Your task to perform on an android device: What's the weather going to be tomorrow? Image 0: 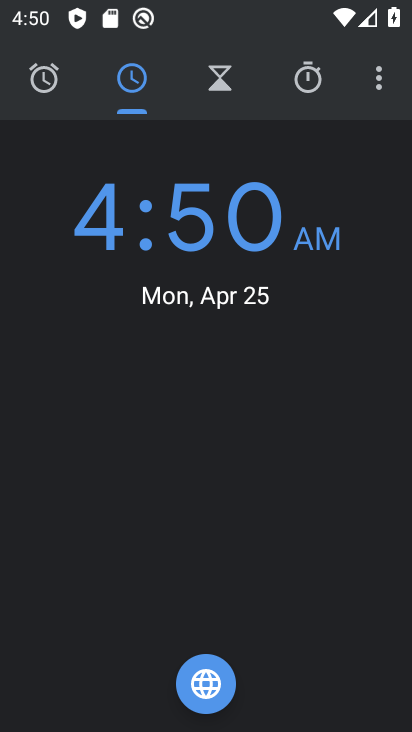
Step 0: press back button
Your task to perform on an android device: What's the weather going to be tomorrow? Image 1: 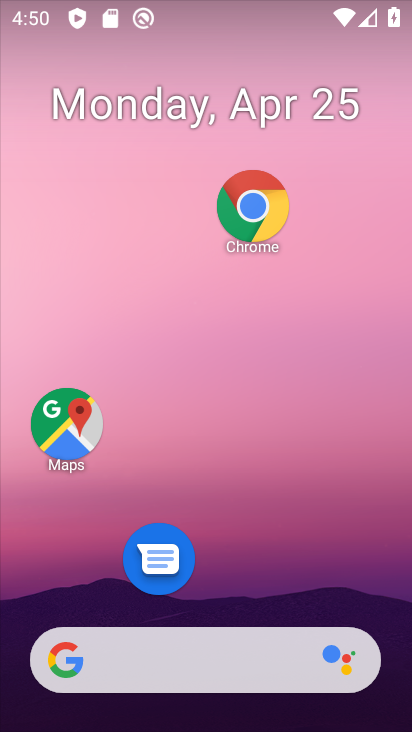
Step 1: drag from (284, 511) to (291, 43)
Your task to perform on an android device: What's the weather going to be tomorrow? Image 2: 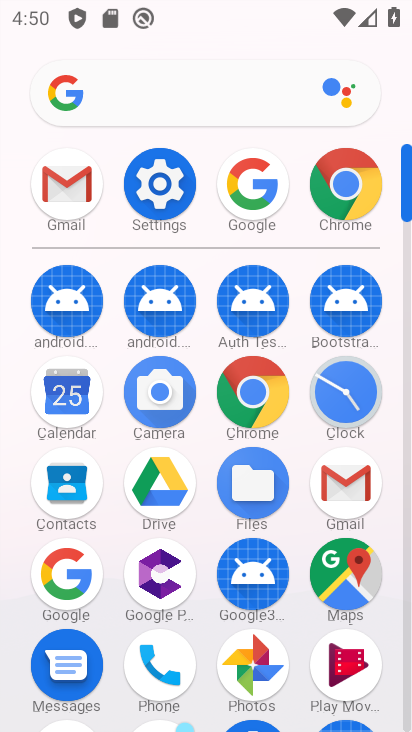
Step 2: click (243, 182)
Your task to perform on an android device: What's the weather going to be tomorrow? Image 3: 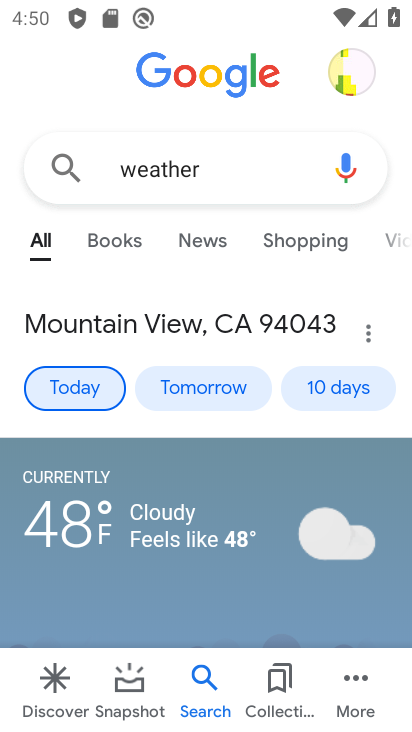
Step 3: click (187, 388)
Your task to perform on an android device: What's the weather going to be tomorrow? Image 4: 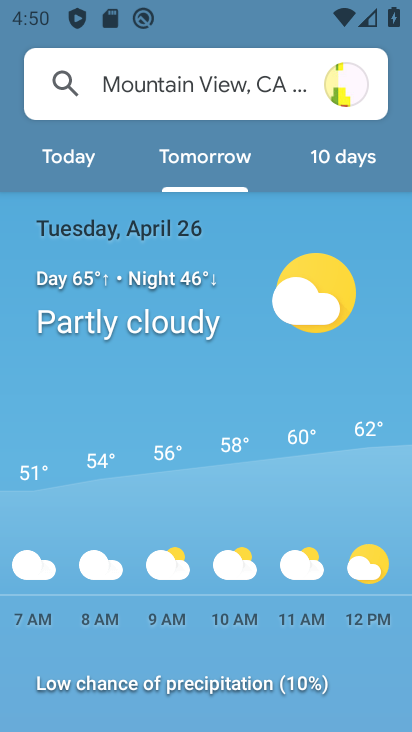
Step 4: task complete